Your task to perform on an android device: turn pop-ups on in chrome Image 0: 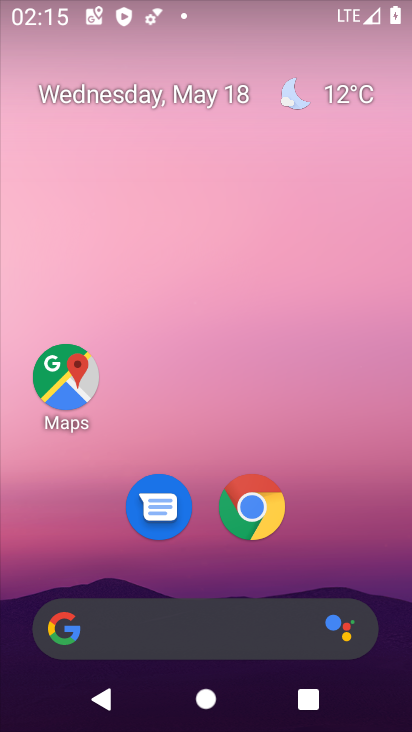
Step 0: click (242, 508)
Your task to perform on an android device: turn pop-ups on in chrome Image 1: 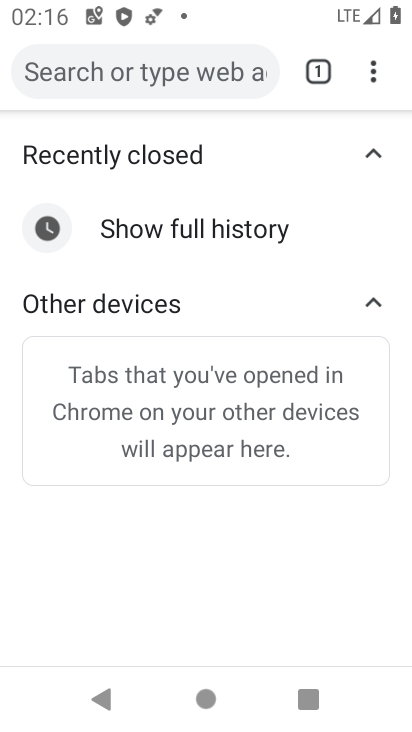
Step 1: click (370, 64)
Your task to perform on an android device: turn pop-ups on in chrome Image 2: 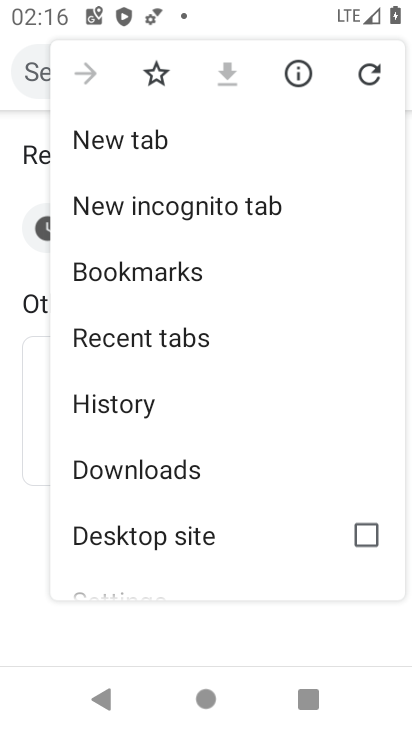
Step 2: drag from (268, 556) to (285, 289)
Your task to perform on an android device: turn pop-ups on in chrome Image 3: 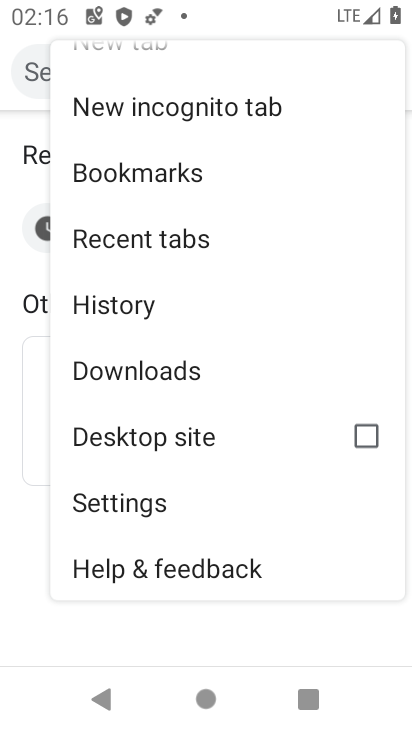
Step 3: click (119, 504)
Your task to perform on an android device: turn pop-ups on in chrome Image 4: 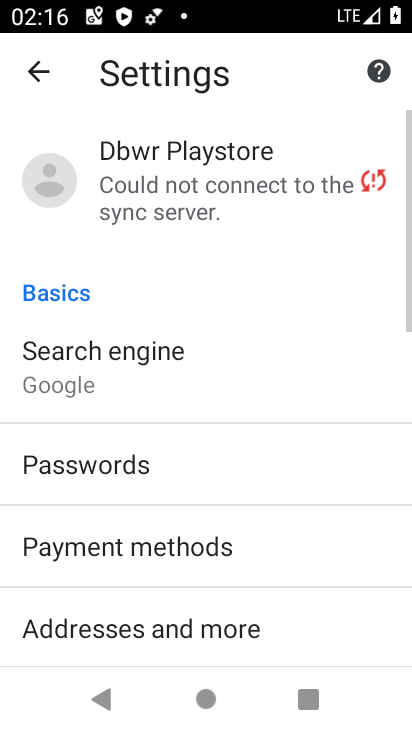
Step 4: drag from (296, 605) to (286, 290)
Your task to perform on an android device: turn pop-ups on in chrome Image 5: 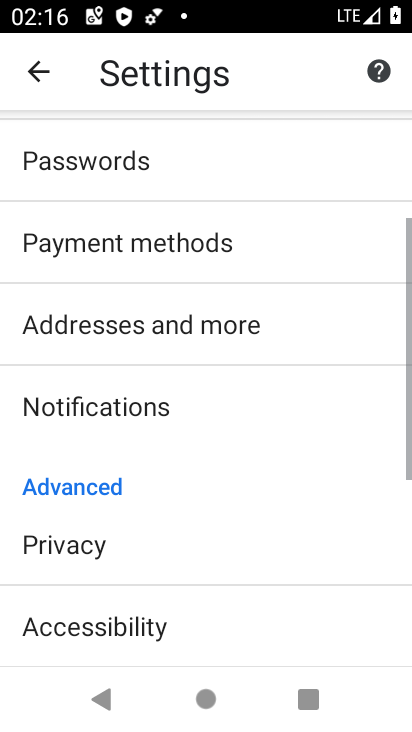
Step 5: drag from (290, 582) to (291, 381)
Your task to perform on an android device: turn pop-ups on in chrome Image 6: 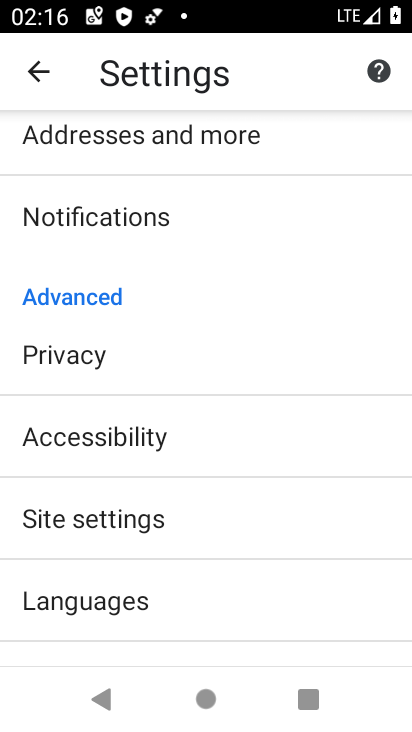
Step 6: drag from (256, 628) to (258, 316)
Your task to perform on an android device: turn pop-ups on in chrome Image 7: 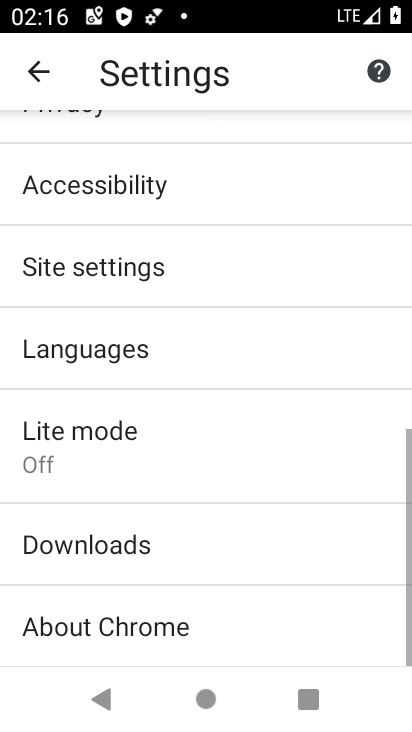
Step 7: drag from (265, 617) to (262, 397)
Your task to perform on an android device: turn pop-ups on in chrome Image 8: 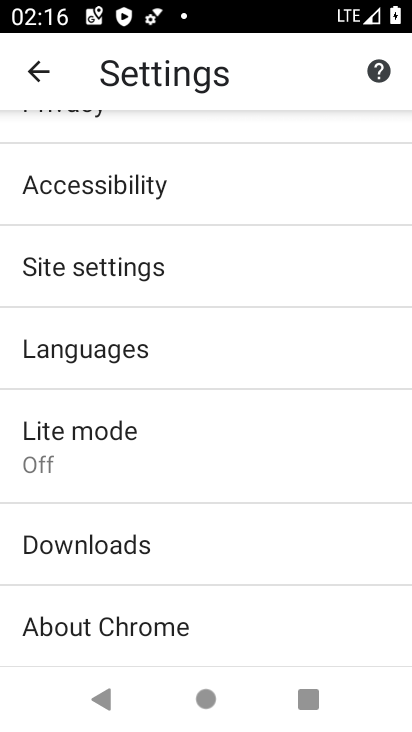
Step 8: drag from (254, 616) to (267, 378)
Your task to perform on an android device: turn pop-ups on in chrome Image 9: 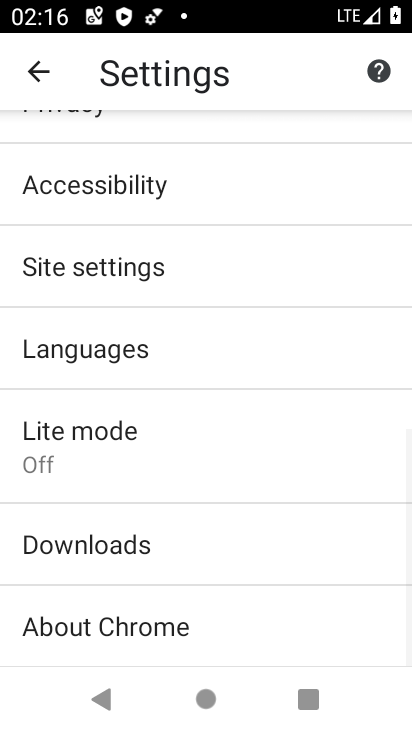
Step 9: click (112, 268)
Your task to perform on an android device: turn pop-ups on in chrome Image 10: 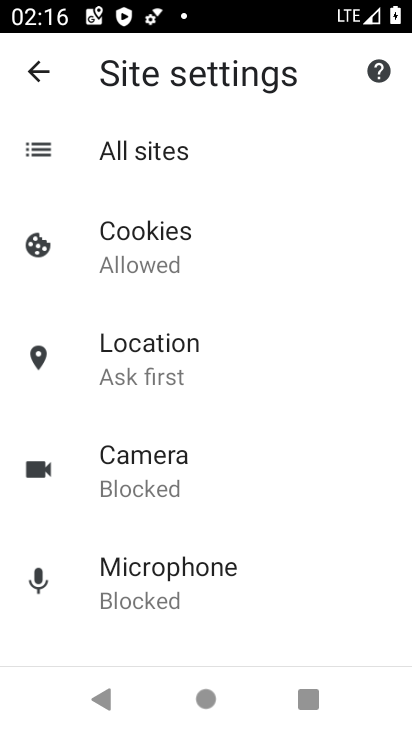
Step 10: drag from (269, 593) to (290, 436)
Your task to perform on an android device: turn pop-ups on in chrome Image 11: 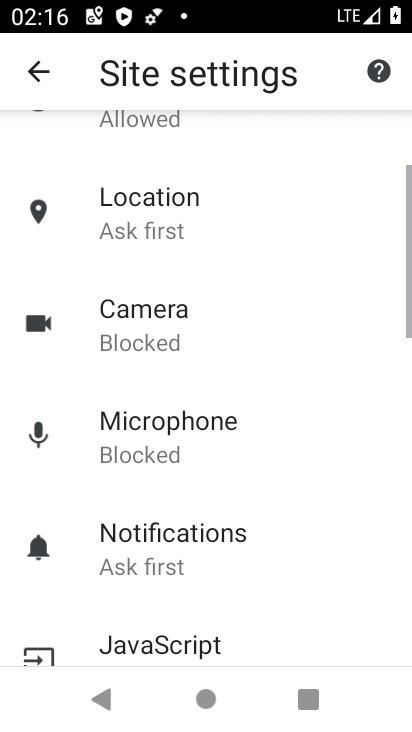
Step 11: drag from (265, 638) to (276, 441)
Your task to perform on an android device: turn pop-ups on in chrome Image 12: 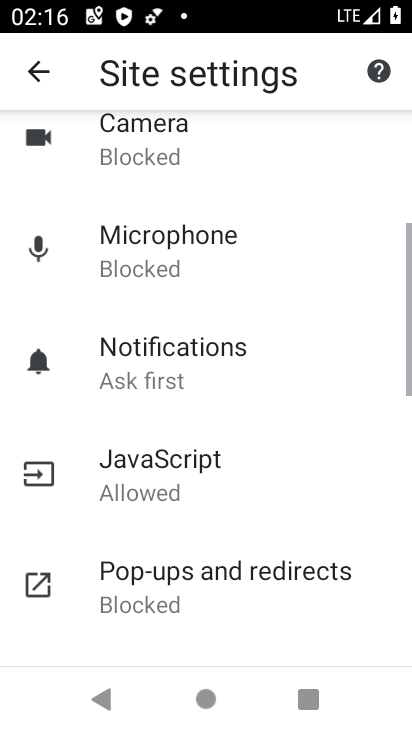
Step 12: click (186, 581)
Your task to perform on an android device: turn pop-ups on in chrome Image 13: 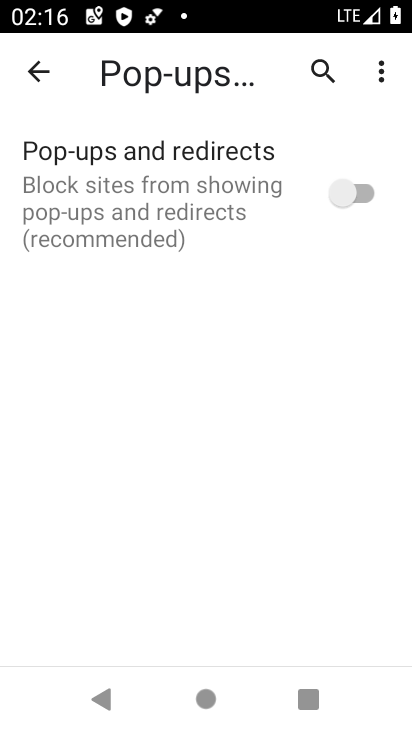
Step 13: click (371, 197)
Your task to perform on an android device: turn pop-ups on in chrome Image 14: 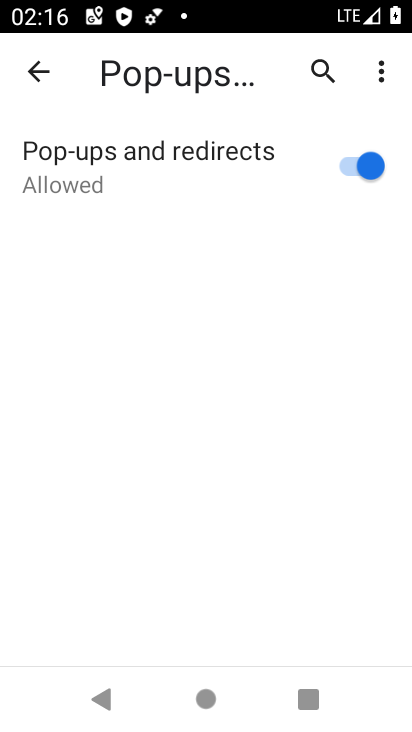
Step 14: task complete